Your task to perform on an android device: turn pop-ups on in chrome Image 0: 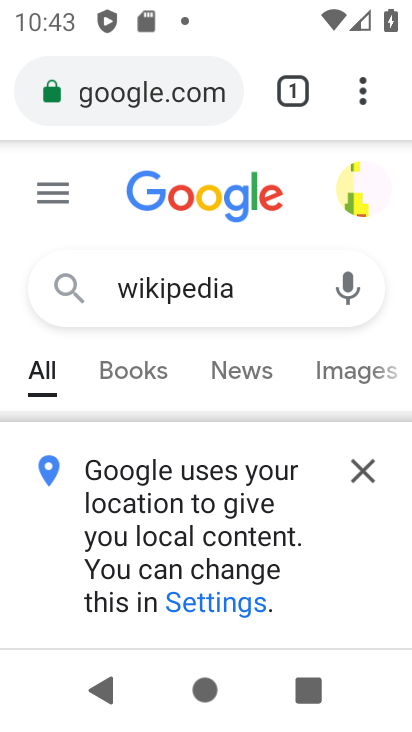
Step 0: press home button
Your task to perform on an android device: turn pop-ups on in chrome Image 1: 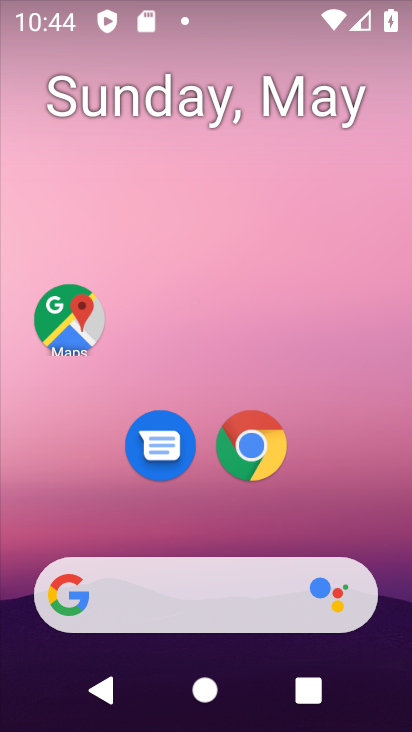
Step 1: click (253, 446)
Your task to perform on an android device: turn pop-ups on in chrome Image 2: 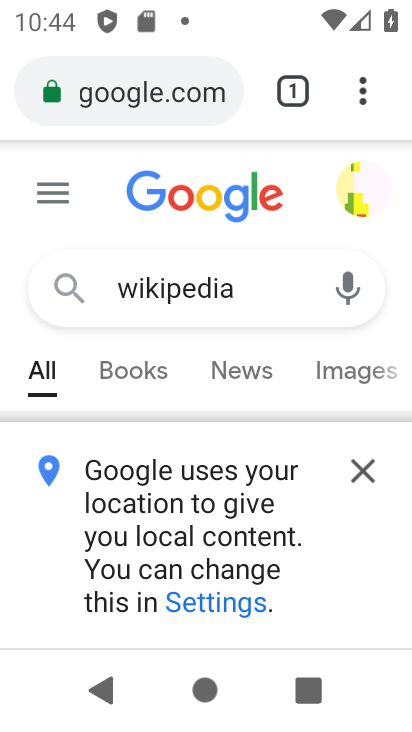
Step 2: click (364, 90)
Your task to perform on an android device: turn pop-ups on in chrome Image 3: 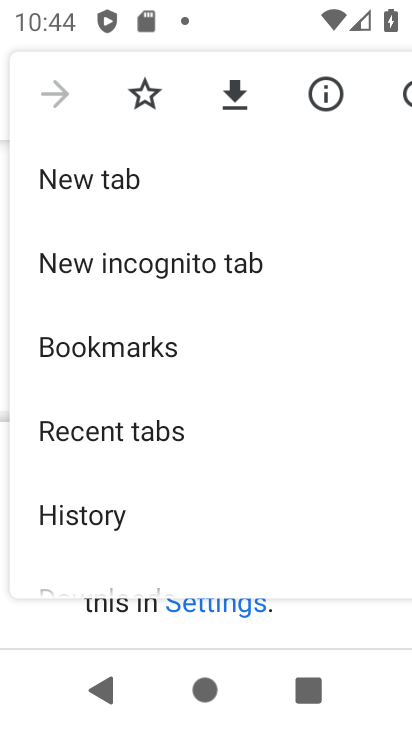
Step 3: drag from (172, 494) to (195, 141)
Your task to perform on an android device: turn pop-ups on in chrome Image 4: 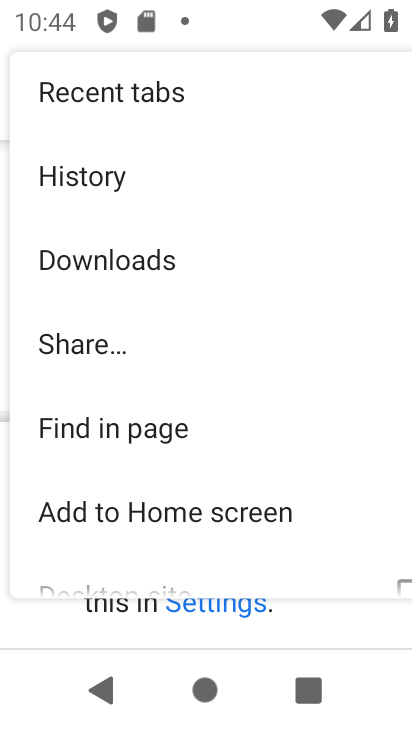
Step 4: drag from (201, 498) to (213, 144)
Your task to perform on an android device: turn pop-ups on in chrome Image 5: 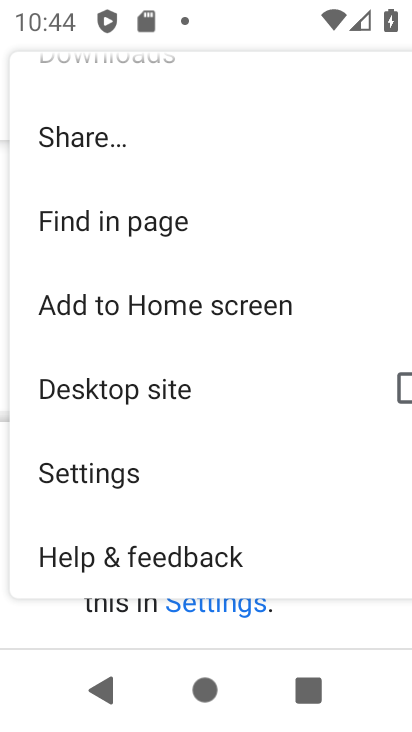
Step 5: click (120, 473)
Your task to perform on an android device: turn pop-ups on in chrome Image 6: 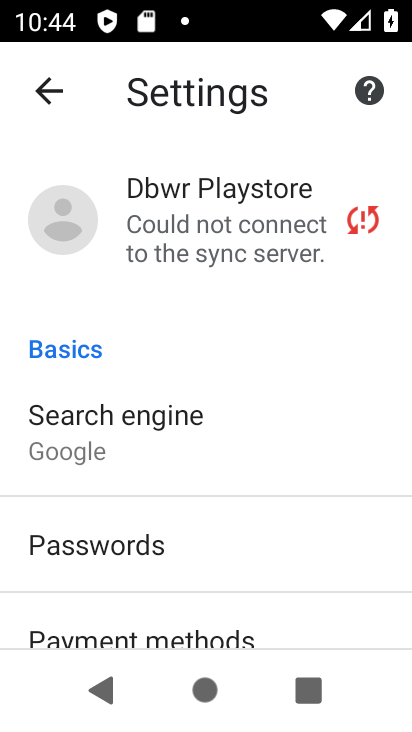
Step 6: drag from (166, 532) to (222, 159)
Your task to perform on an android device: turn pop-ups on in chrome Image 7: 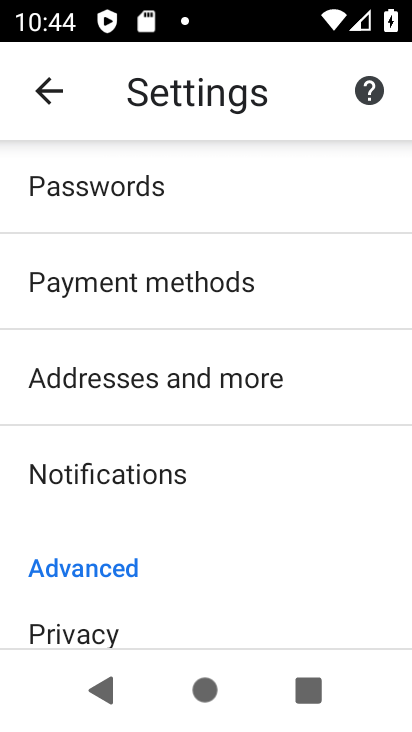
Step 7: drag from (173, 566) to (253, 229)
Your task to perform on an android device: turn pop-ups on in chrome Image 8: 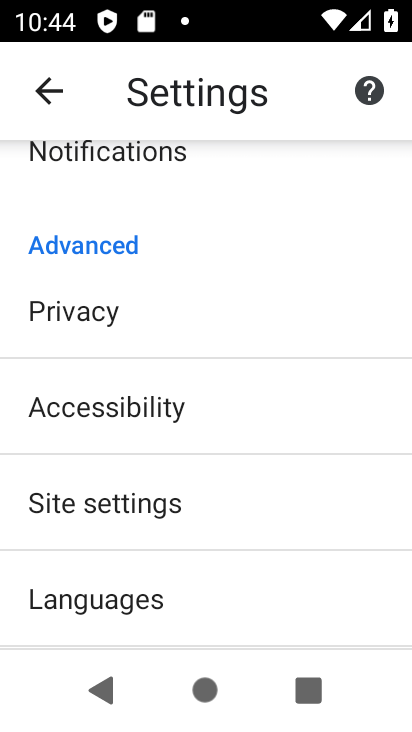
Step 8: click (143, 501)
Your task to perform on an android device: turn pop-ups on in chrome Image 9: 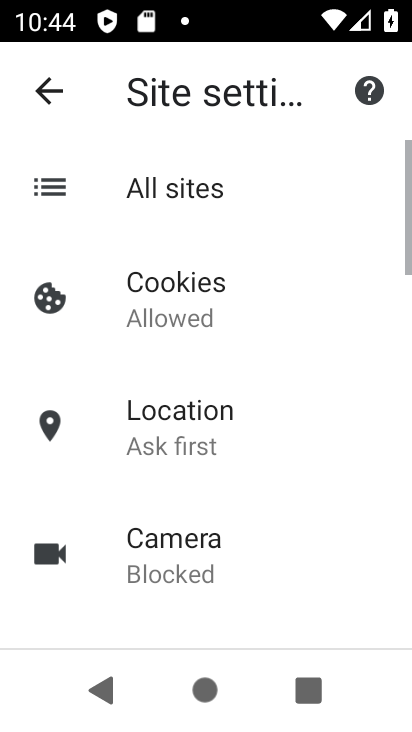
Step 9: drag from (154, 495) to (231, 182)
Your task to perform on an android device: turn pop-ups on in chrome Image 10: 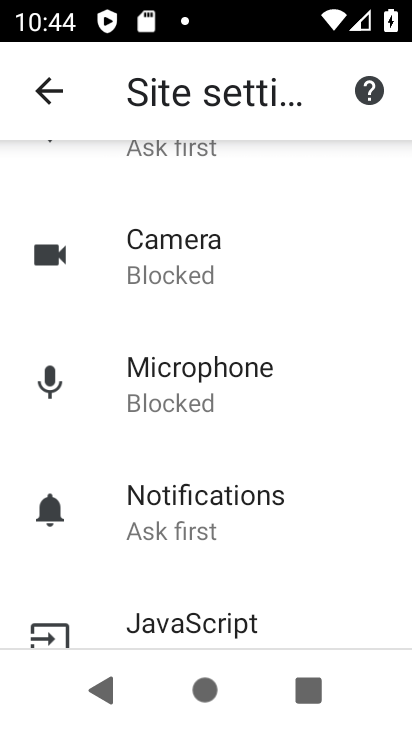
Step 10: drag from (211, 497) to (304, 229)
Your task to perform on an android device: turn pop-ups on in chrome Image 11: 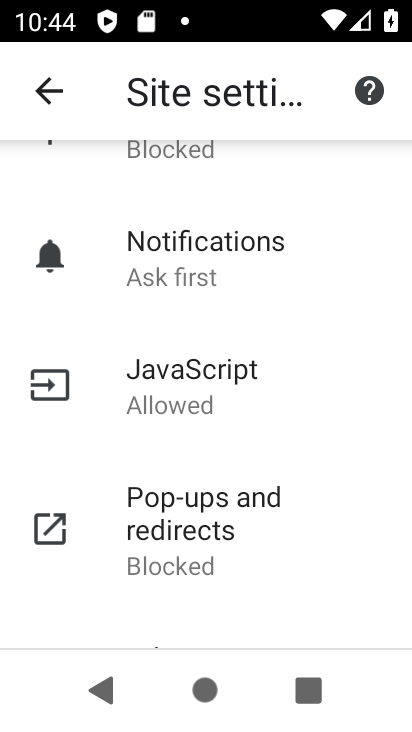
Step 11: click (181, 526)
Your task to perform on an android device: turn pop-ups on in chrome Image 12: 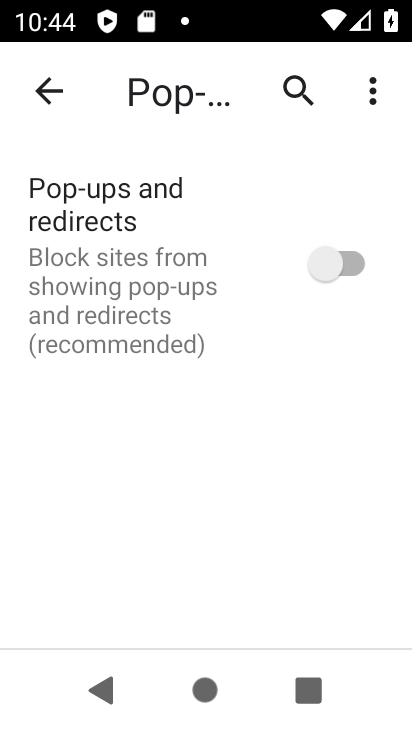
Step 12: click (324, 258)
Your task to perform on an android device: turn pop-ups on in chrome Image 13: 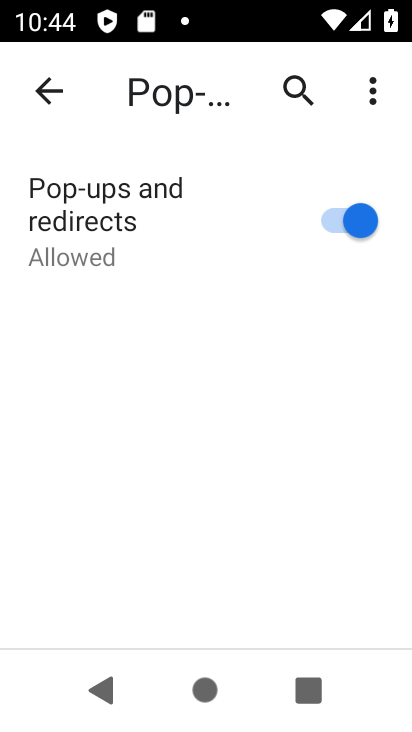
Step 13: task complete